Your task to perform on an android device: check out phone information Image 0: 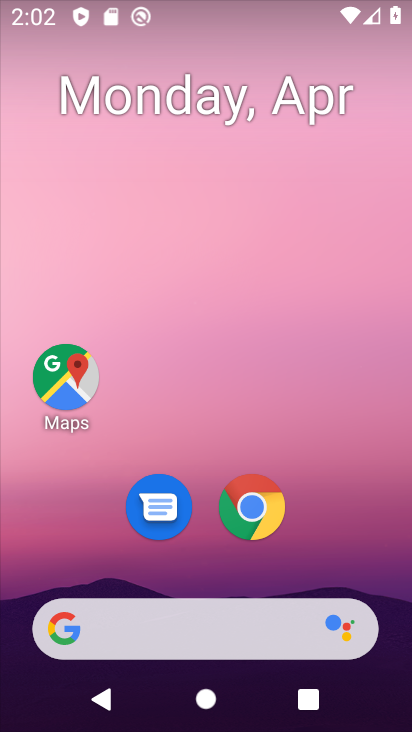
Step 0: drag from (385, 613) to (328, 79)
Your task to perform on an android device: check out phone information Image 1: 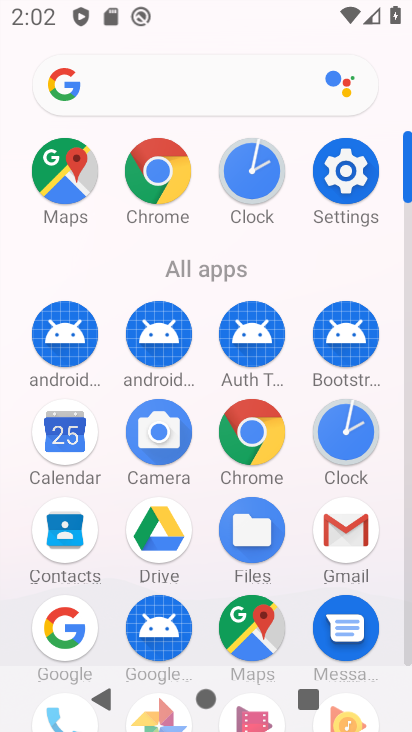
Step 1: click (408, 650)
Your task to perform on an android device: check out phone information Image 2: 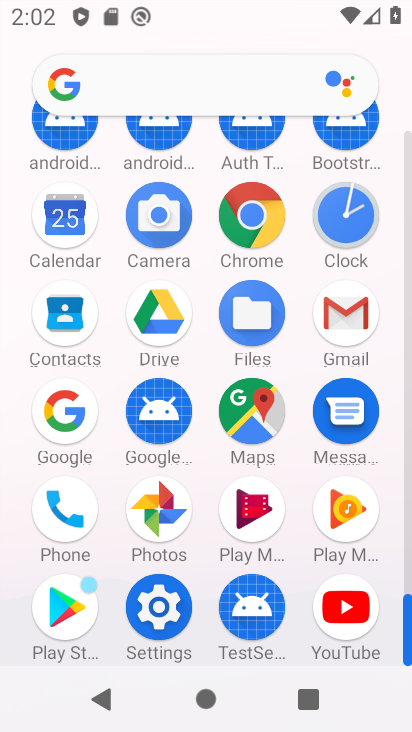
Step 2: click (157, 606)
Your task to perform on an android device: check out phone information Image 3: 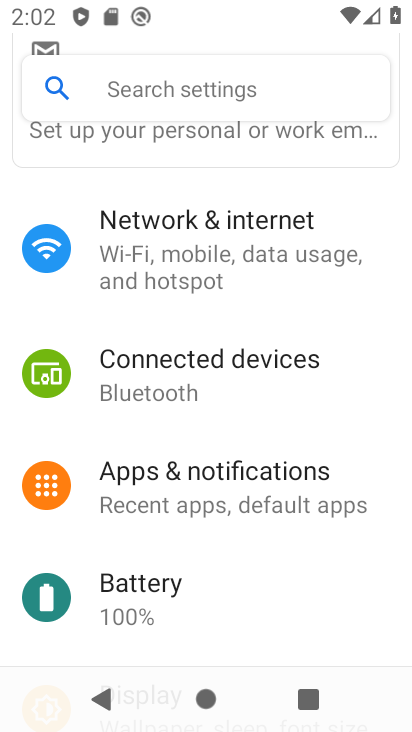
Step 3: drag from (362, 611) to (340, 307)
Your task to perform on an android device: check out phone information Image 4: 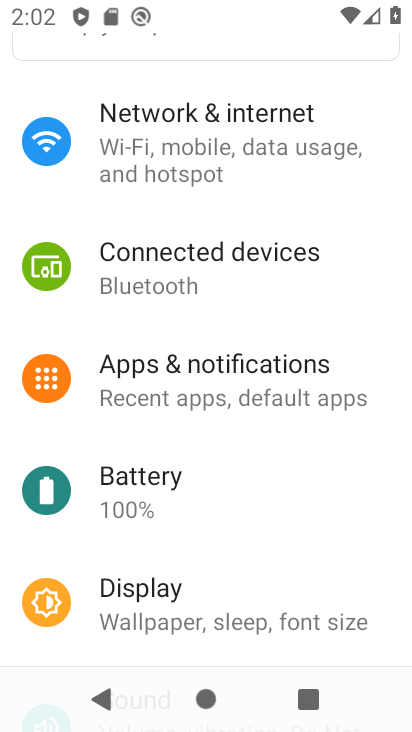
Step 4: drag from (341, 556) to (355, 258)
Your task to perform on an android device: check out phone information Image 5: 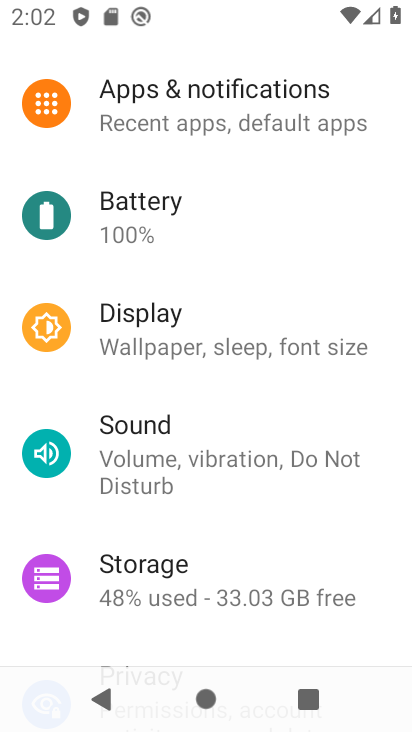
Step 5: drag from (361, 594) to (387, 250)
Your task to perform on an android device: check out phone information Image 6: 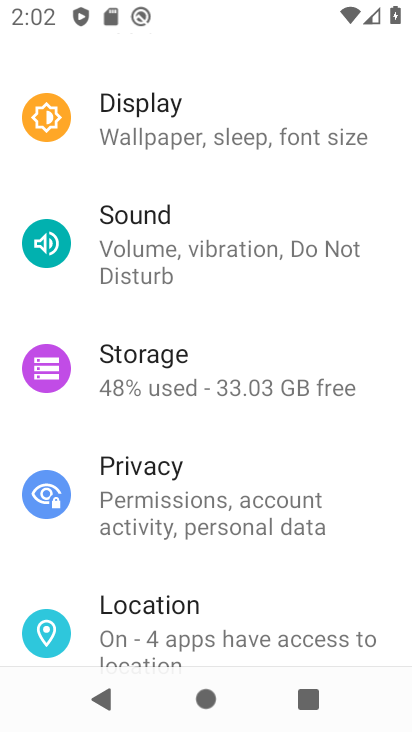
Step 6: drag from (367, 582) to (384, 198)
Your task to perform on an android device: check out phone information Image 7: 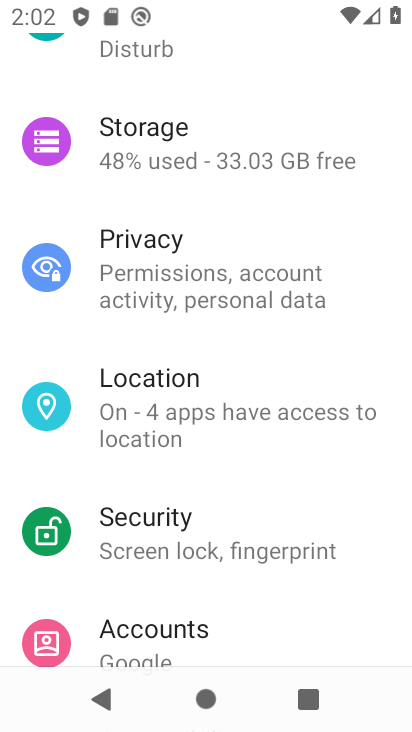
Step 7: drag from (348, 643) to (368, 331)
Your task to perform on an android device: check out phone information Image 8: 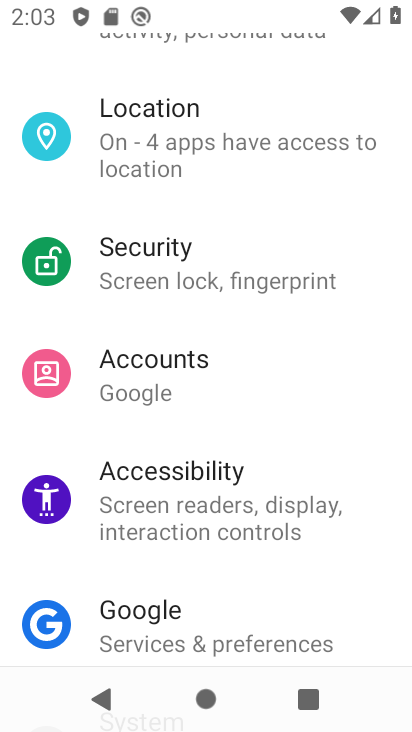
Step 8: drag from (345, 641) to (313, 213)
Your task to perform on an android device: check out phone information Image 9: 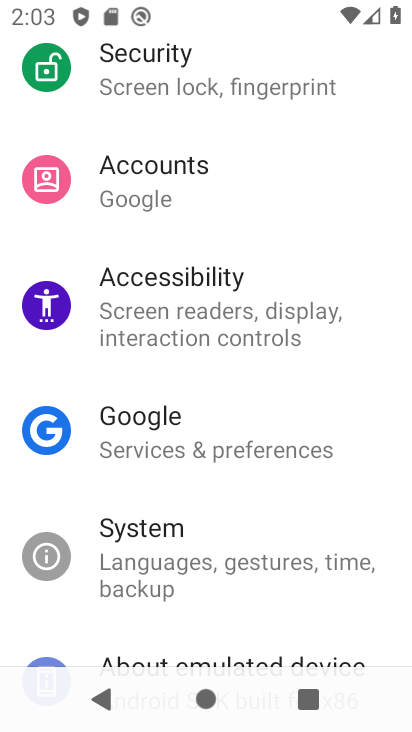
Step 9: drag from (365, 649) to (320, 213)
Your task to perform on an android device: check out phone information Image 10: 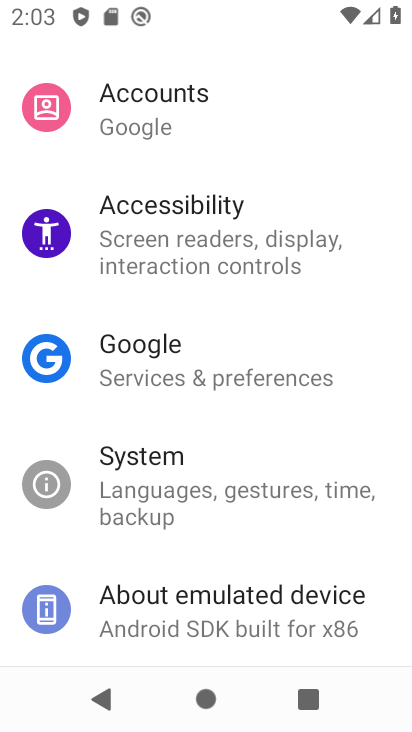
Step 10: click (168, 603)
Your task to perform on an android device: check out phone information Image 11: 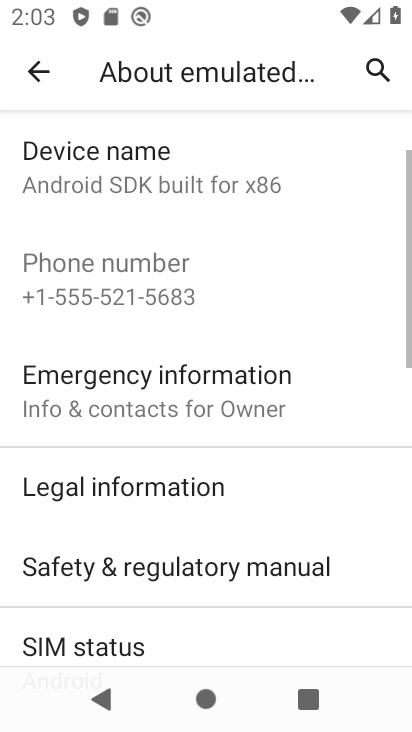
Step 11: task complete